Your task to perform on an android device: Open Google Chrome and open the bookmarks view Image 0: 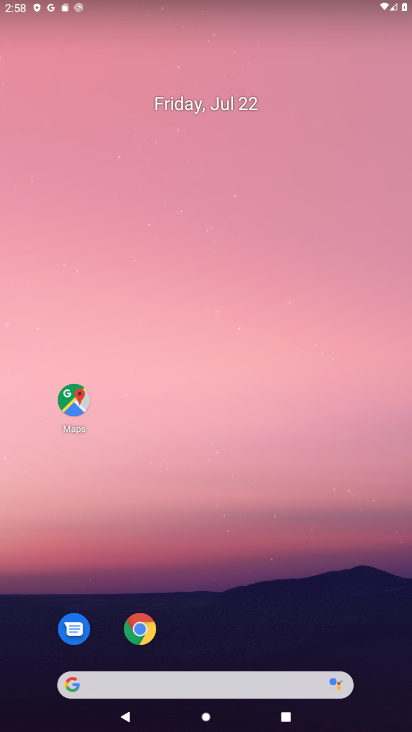
Step 0: click (143, 626)
Your task to perform on an android device: Open Google Chrome and open the bookmarks view Image 1: 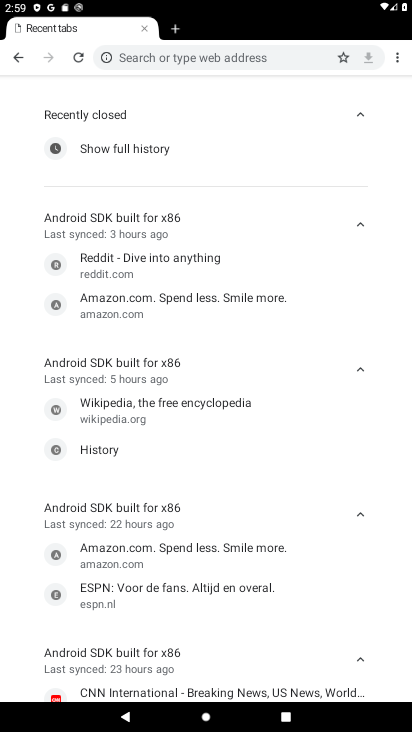
Step 1: click (394, 56)
Your task to perform on an android device: Open Google Chrome and open the bookmarks view Image 2: 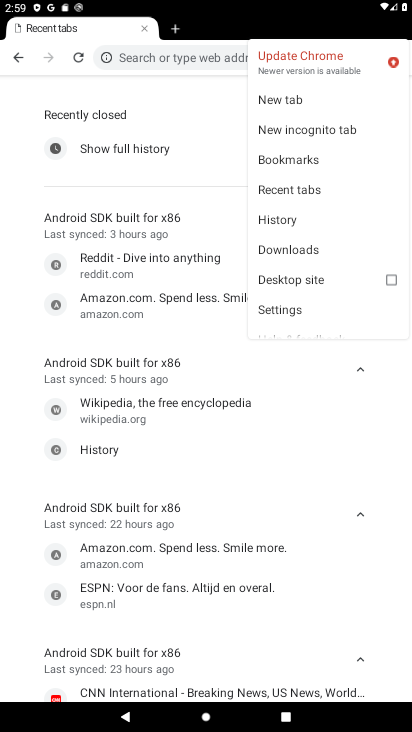
Step 2: click (288, 157)
Your task to perform on an android device: Open Google Chrome and open the bookmarks view Image 3: 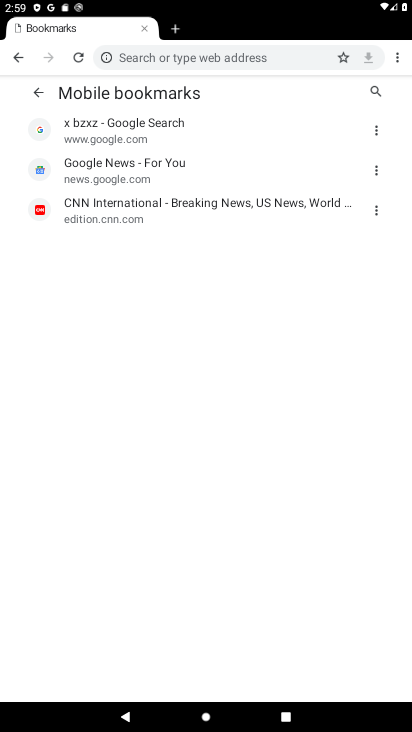
Step 3: click (376, 126)
Your task to perform on an android device: Open Google Chrome and open the bookmarks view Image 4: 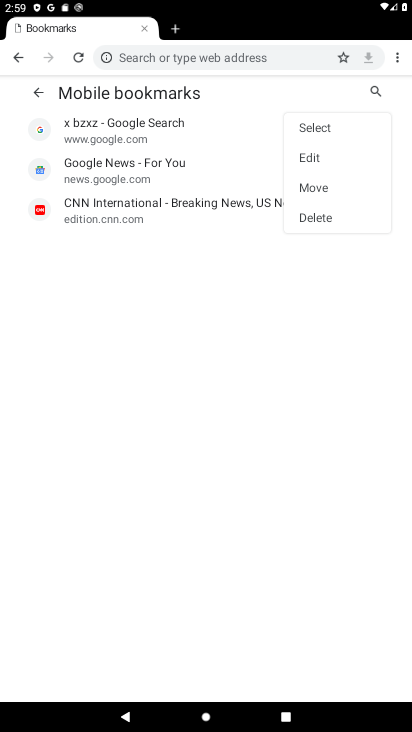
Step 4: click (313, 157)
Your task to perform on an android device: Open Google Chrome and open the bookmarks view Image 5: 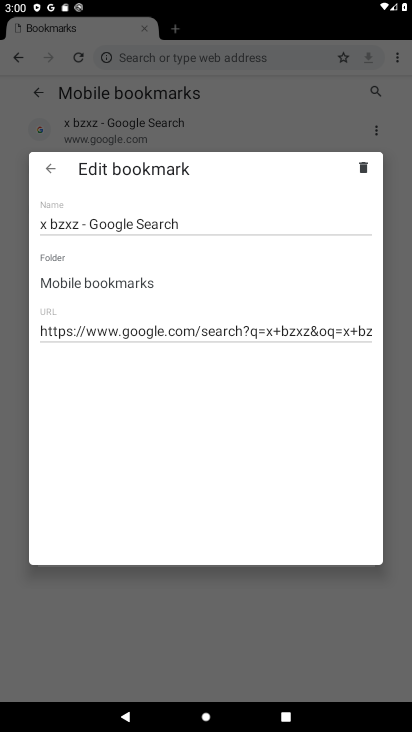
Step 5: task complete